Your task to perform on an android device: see creations saved in the google photos Image 0: 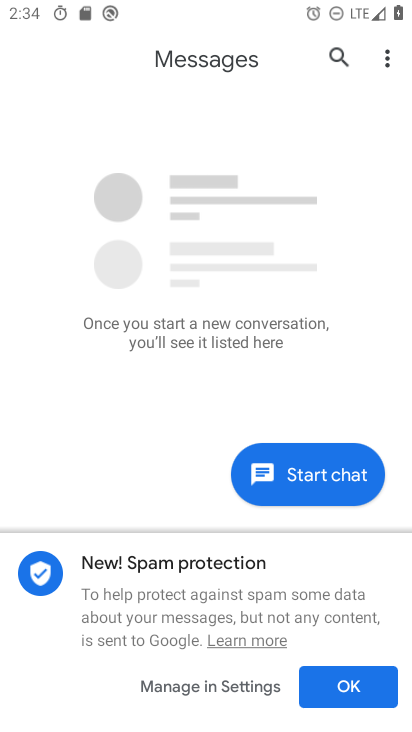
Step 0: press home button
Your task to perform on an android device: see creations saved in the google photos Image 1: 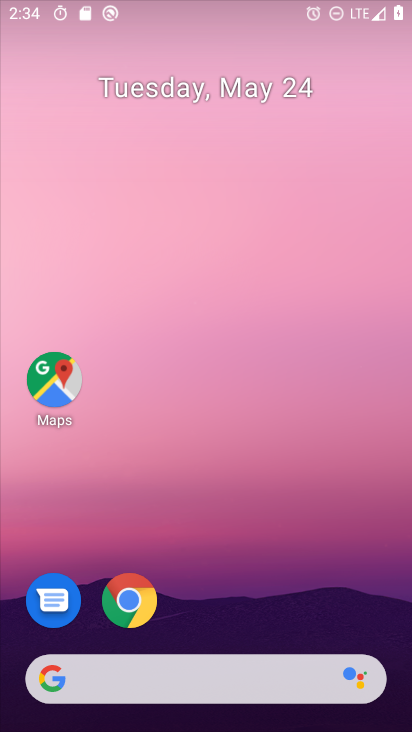
Step 1: drag from (287, 577) to (275, 86)
Your task to perform on an android device: see creations saved in the google photos Image 2: 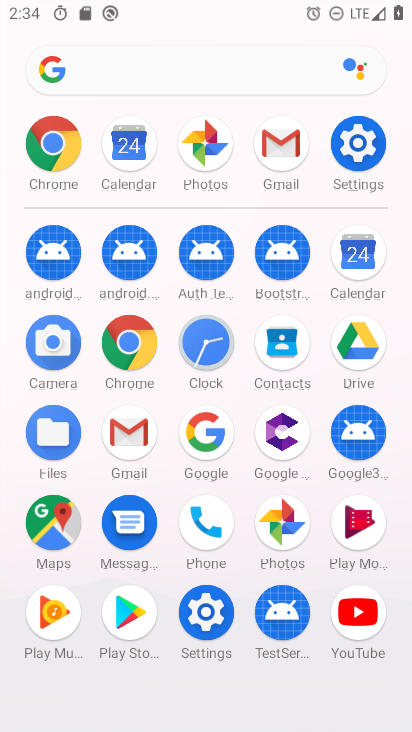
Step 2: click (289, 516)
Your task to perform on an android device: see creations saved in the google photos Image 3: 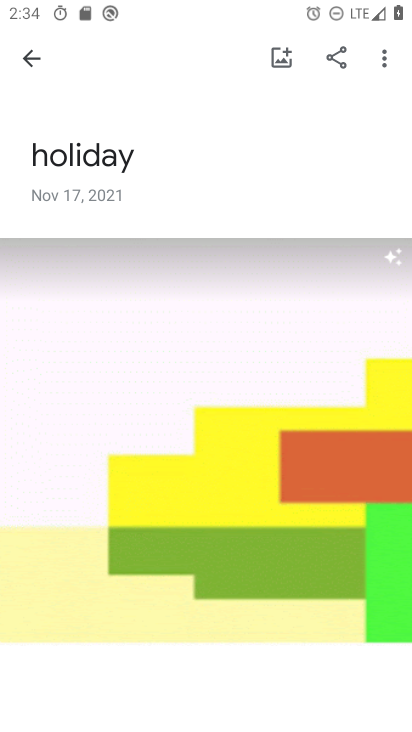
Step 3: click (34, 53)
Your task to perform on an android device: see creations saved in the google photos Image 4: 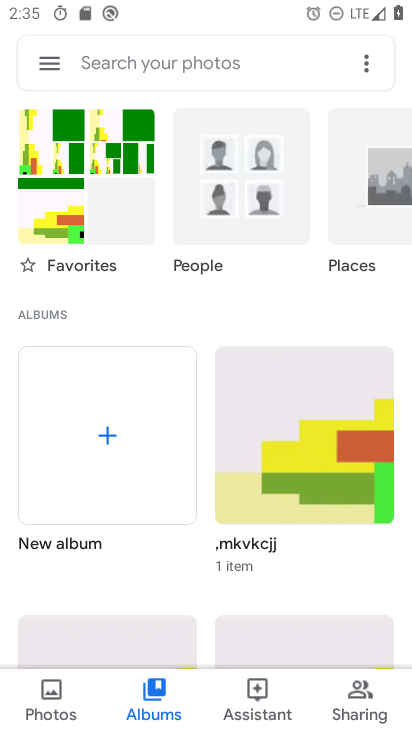
Step 4: task complete